Your task to perform on an android device: Open Chrome and go to settings Image 0: 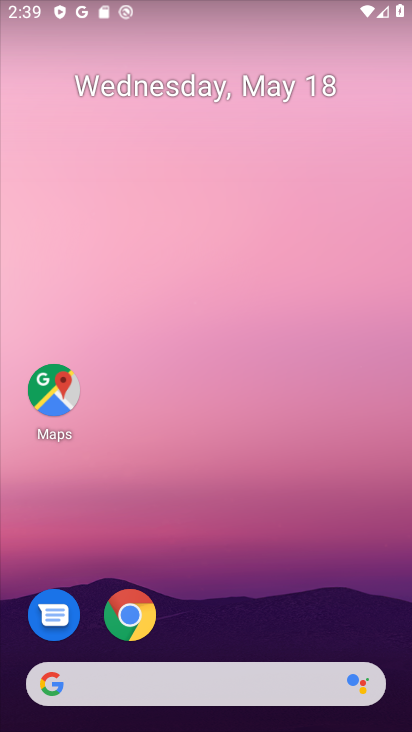
Step 0: drag from (293, 604) to (312, 84)
Your task to perform on an android device: Open Chrome and go to settings Image 1: 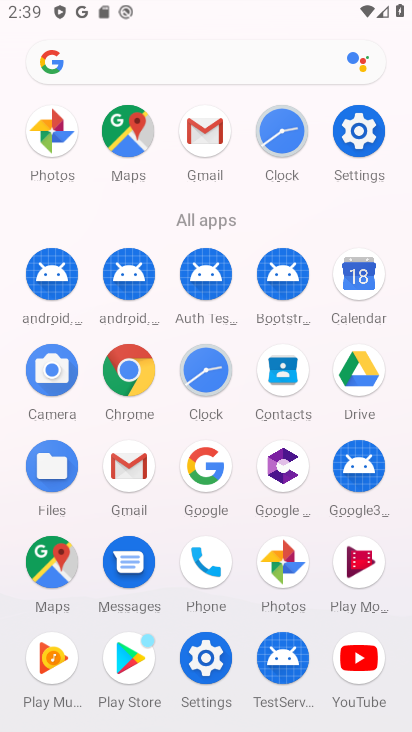
Step 1: click (141, 368)
Your task to perform on an android device: Open Chrome and go to settings Image 2: 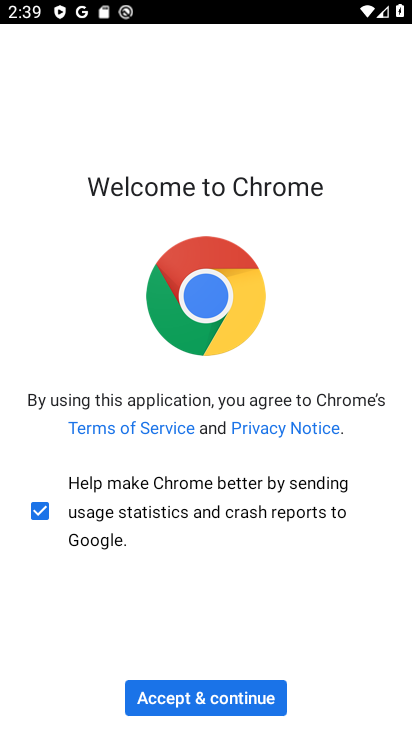
Step 2: click (212, 704)
Your task to perform on an android device: Open Chrome and go to settings Image 3: 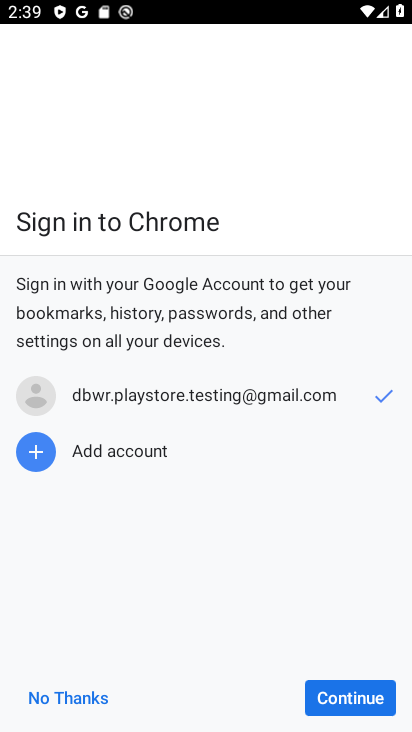
Step 3: click (327, 691)
Your task to perform on an android device: Open Chrome and go to settings Image 4: 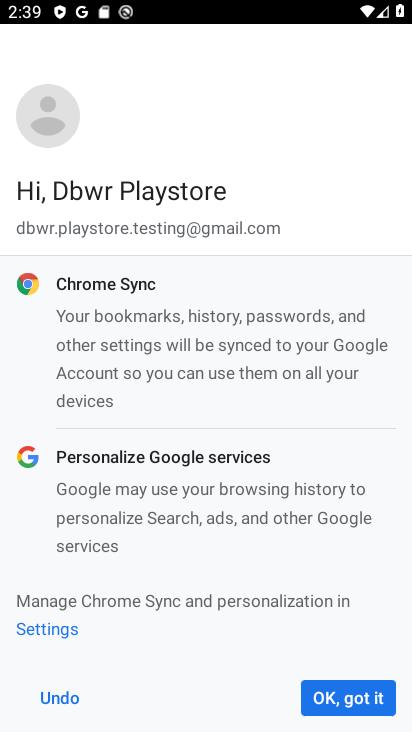
Step 4: click (328, 690)
Your task to perform on an android device: Open Chrome and go to settings Image 5: 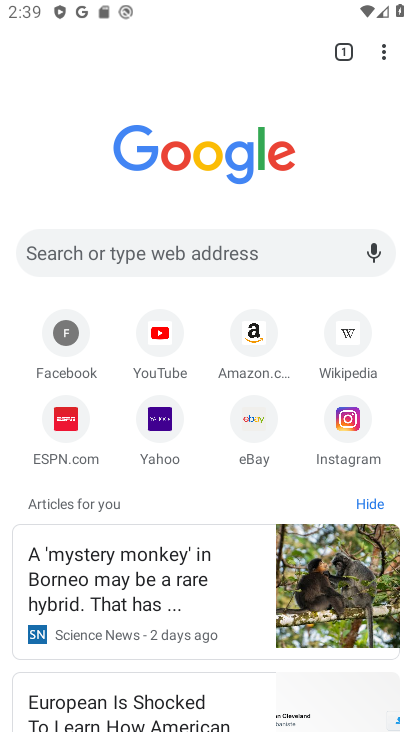
Step 5: task complete